Your task to perform on an android device: Open Chrome and go to the settings page Image 0: 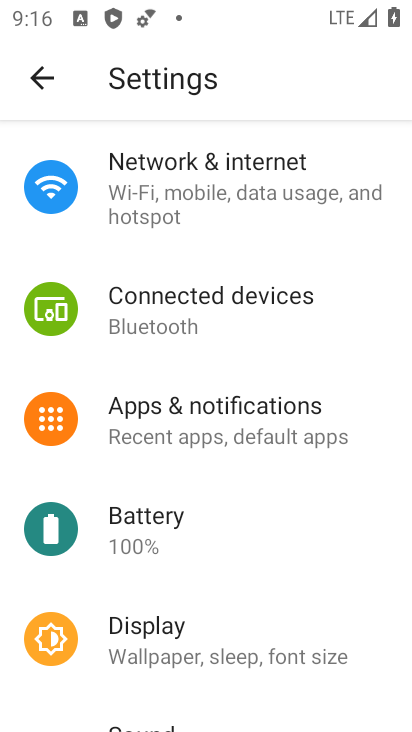
Step 0: drag from (233, 602) to (259, 321)
Your task to perform on an android device: Open Chrome and go to the settings page Image 1: 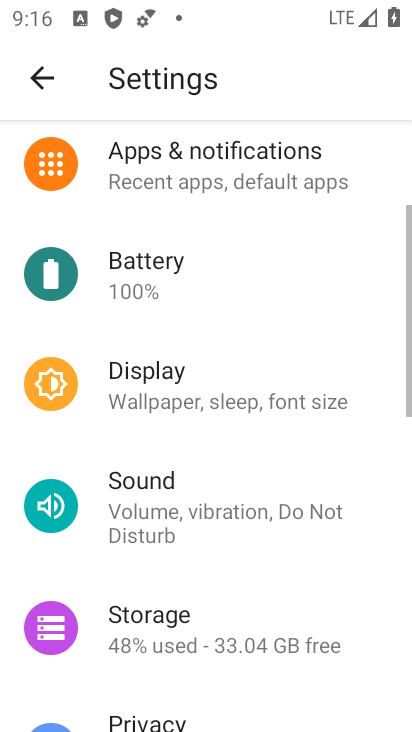
Step 1: drag from (270, 590) to (277, 304)
Your task to perform on an android device: Open Chrome and go to the settings page Image 2: 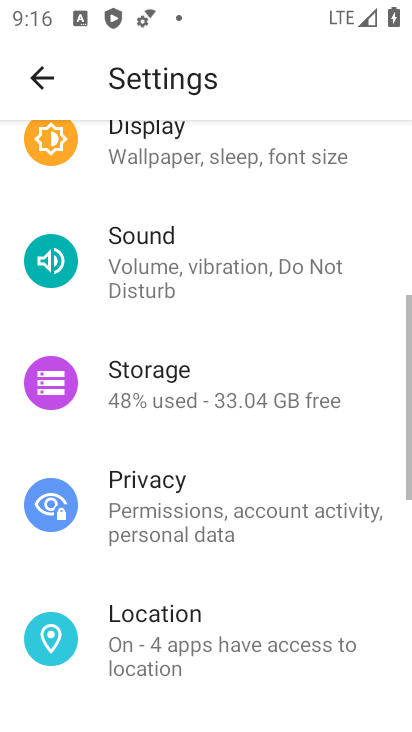
Step 2: drag from (280, 612) to (259, 297)
Your task to perform on an android device: Open Chrome and go to the settings page Image 3: 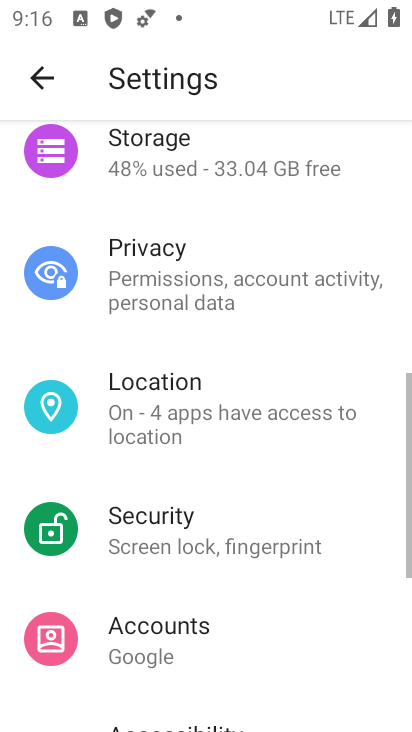
Step 3: drag from (232, 679) to (227, 349)
Your task to perform on an android device: Open Chrome and go to the settings page Image 4: 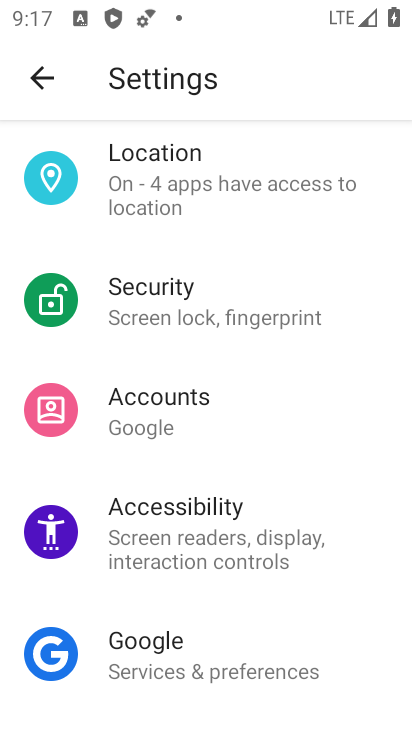
Step 4: press home button
Your task to perform on an android device: Open Chrome and go to the settings page Image 5: 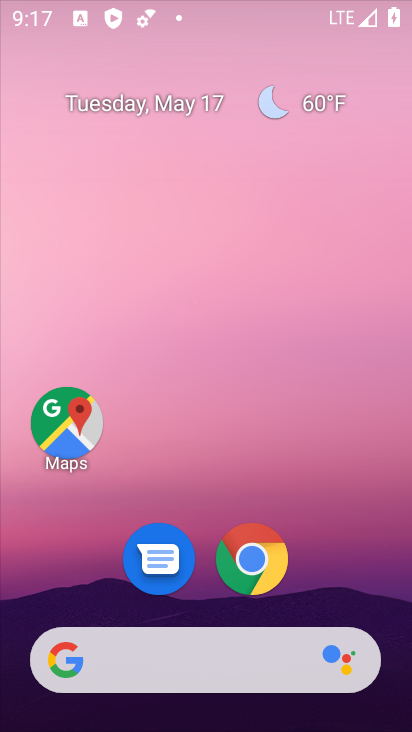
Step 5: click (257, 559)
Your task to perform on an android device: Open Chrome and go to the settings page Image 6: 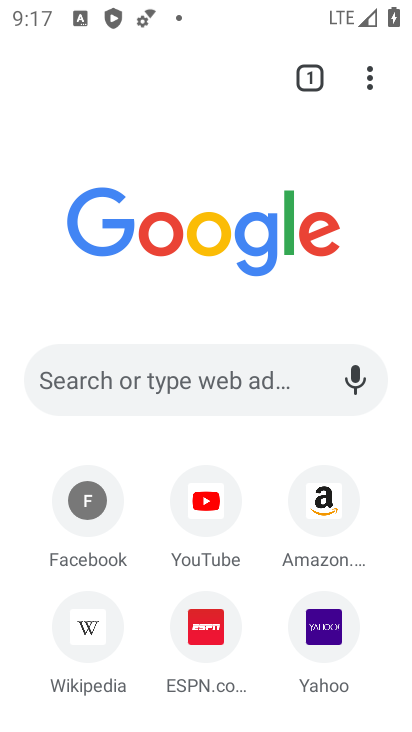
Step 6: task complete